Your task to perform on an android device: turn notification dots off Image 0: 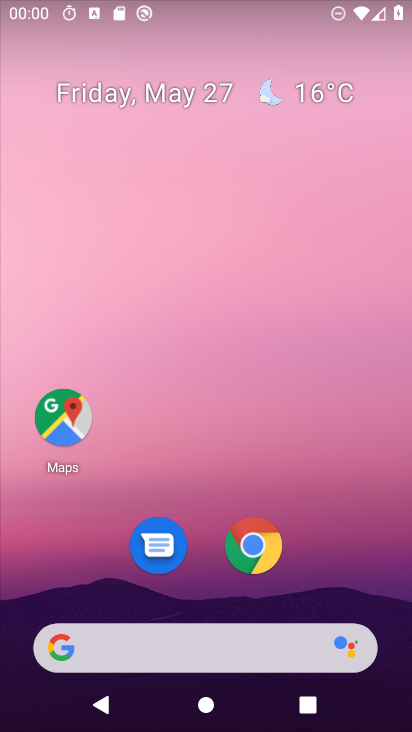
Step 0: press home button
Your task to perform on an android device: turn notification dots off Image 1: 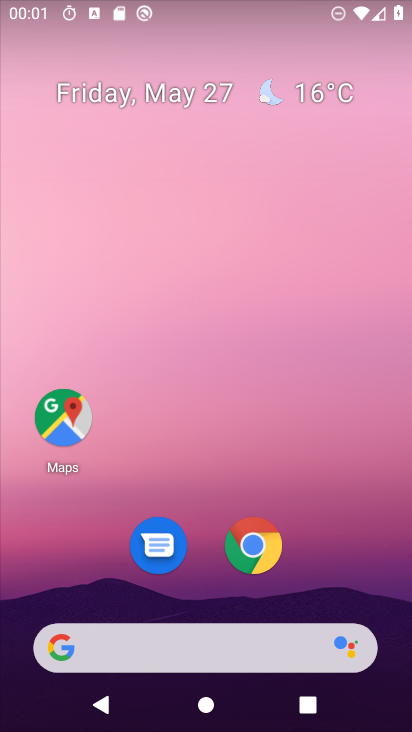
Step 1: drag from (230, 610) to (206, 154)
Your task to perform on an android device: turn notification dots off Image 2: 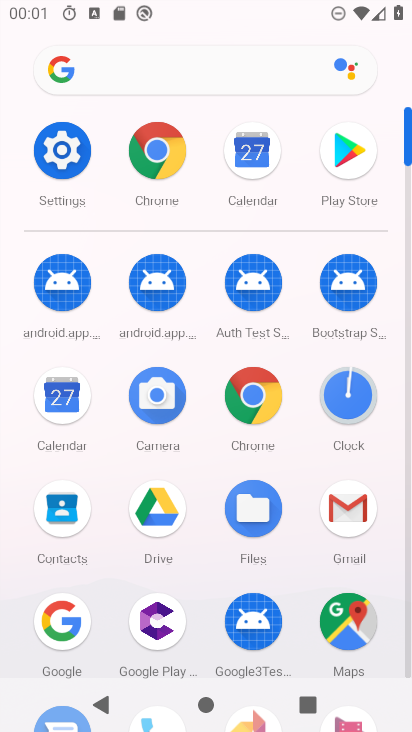
Step 2: click (52, 148)
Your task to perform on an android device: turn notification dots off Image 3: 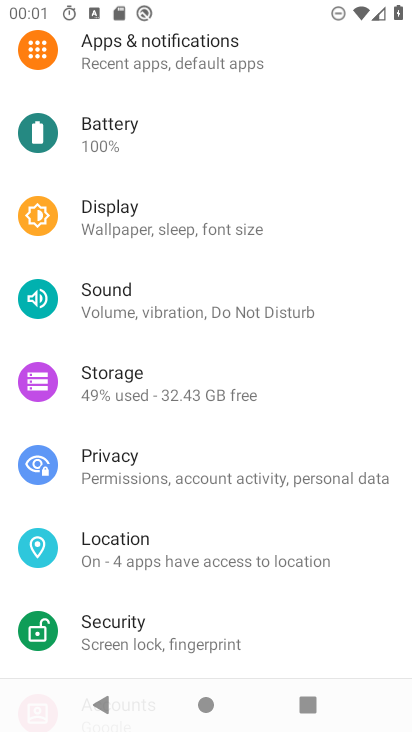
Step 3: click (143, 66)
Your task to perform on an android device: turn notification dots off Image 4: 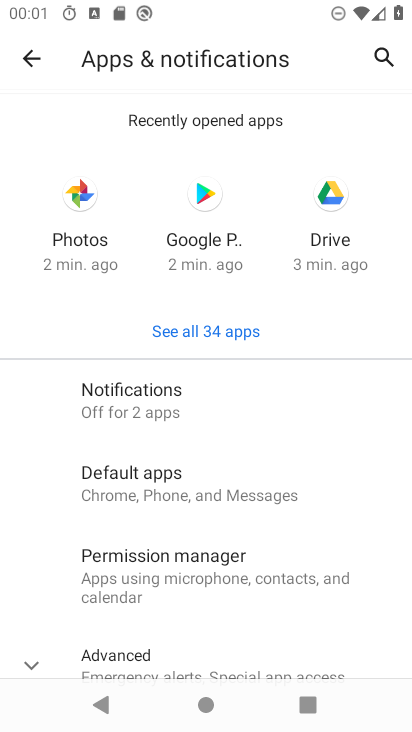
Step 4: click (147, 416)
Your task to perform on an android device: turn notification dots off Image 5: 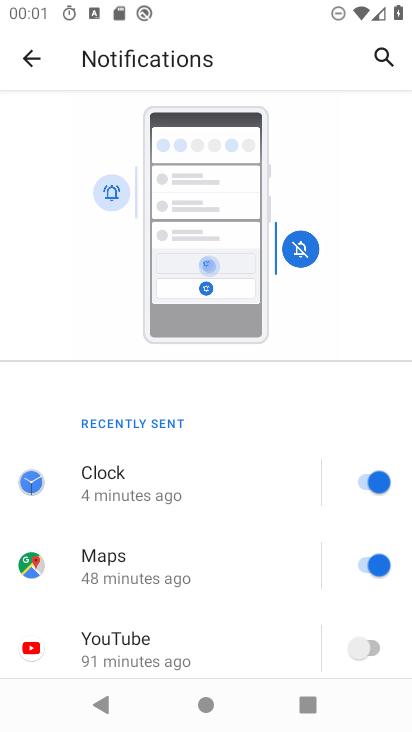
Step 5: drag from (297, 434) to (300, 9)
Your task to perform on an android device: turn notification dots off Image 6: 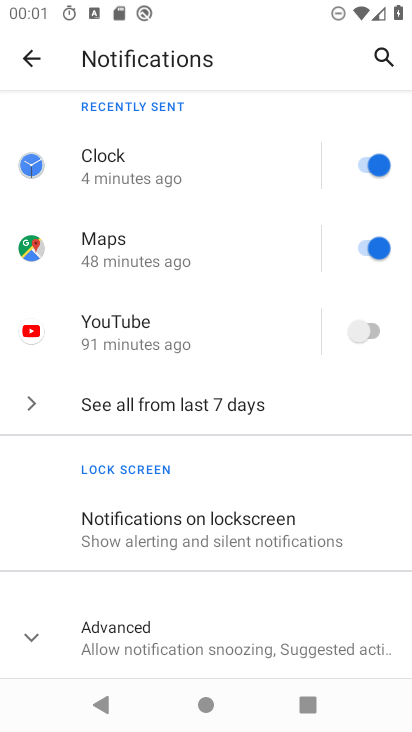
Step 6: click (140, 646)
Your task to perform on an android device: turn notification dots off Image 7: 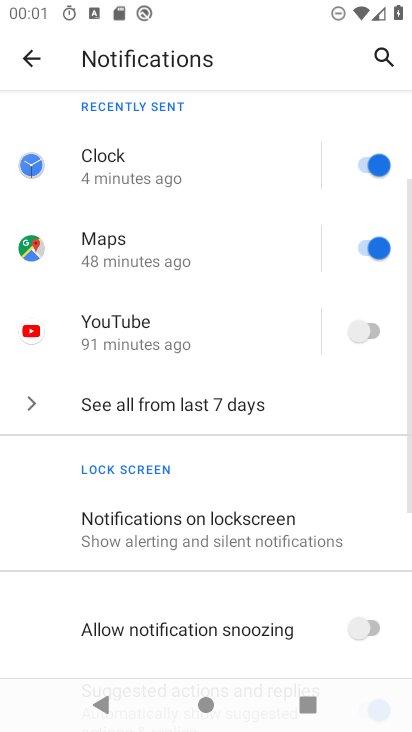
Step 7: task complete